Your task to perform on an android device: clear history in the chrome app Image 0: 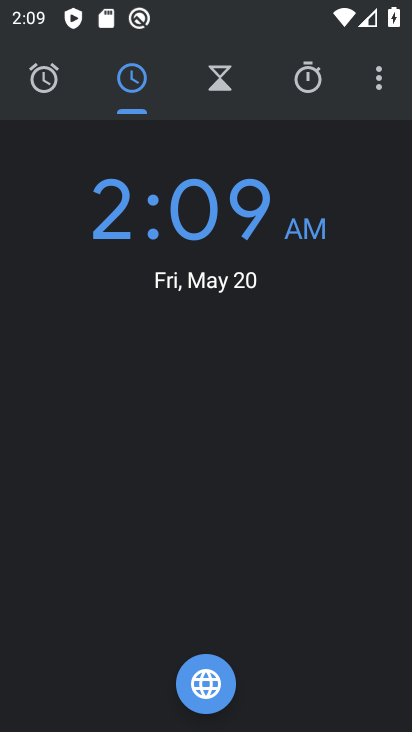
Step 0: press home button
Your task to perform on an android device: clear history in the chrome app Image 1: 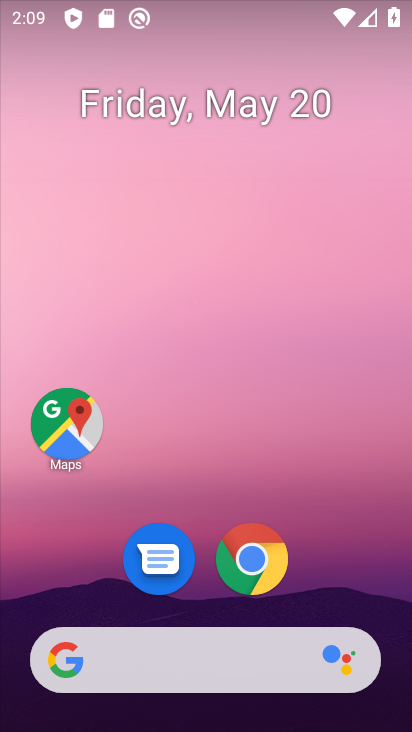
Step 1: click (264, 551)
Your task to perform on an android device: clear history in the chrome app Image 2: 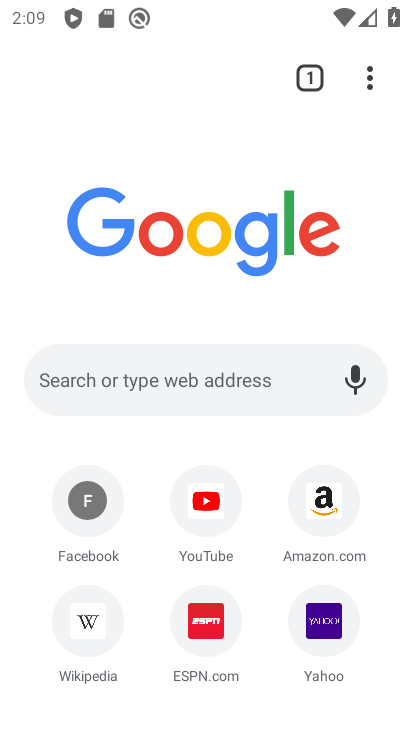
Step 2: click (364, 81)
Your task to perform on an android device: clear history in the chrome app Image 3: 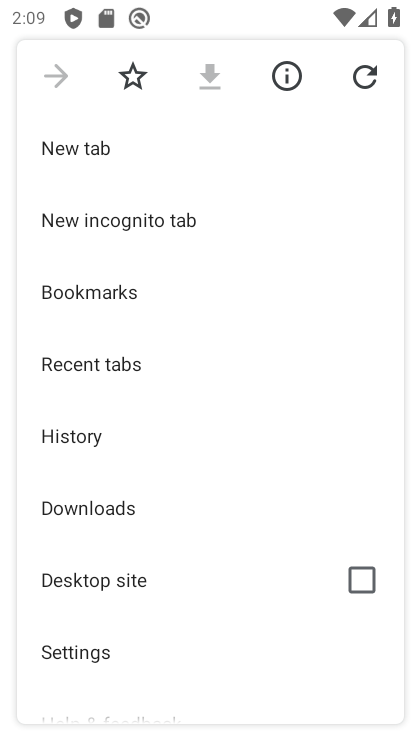
Step 3: click (116, 436)
Your task to perform on an android device: clear history in the chrome app Image 4: 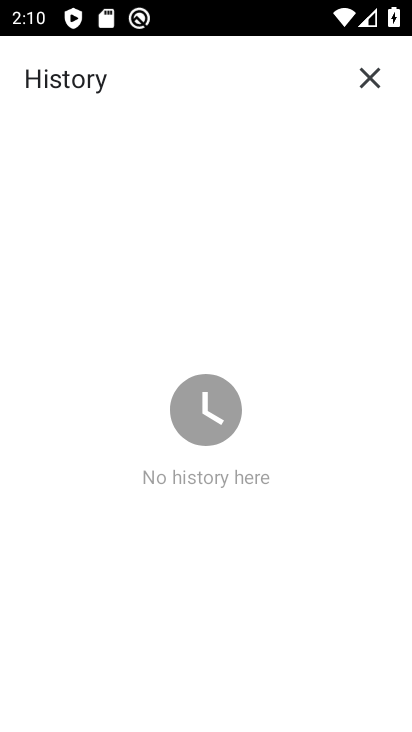
Step 4: task complete